Your task to perform on an android device: Go to Reddit.com Image 0: 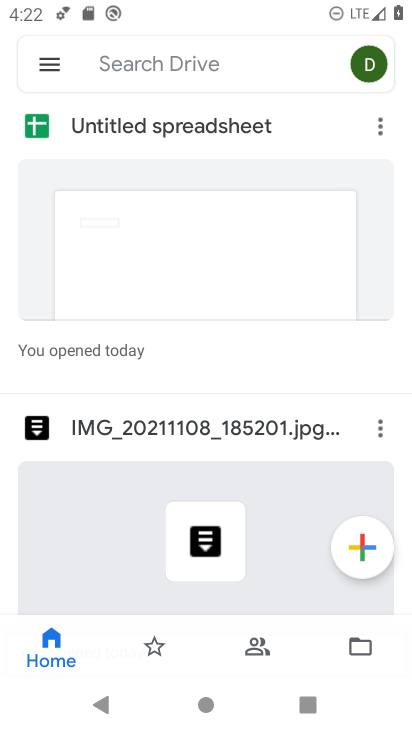
Step 0: press home button
Your task to perform on an android device: Go to Reddit.com Image 1: 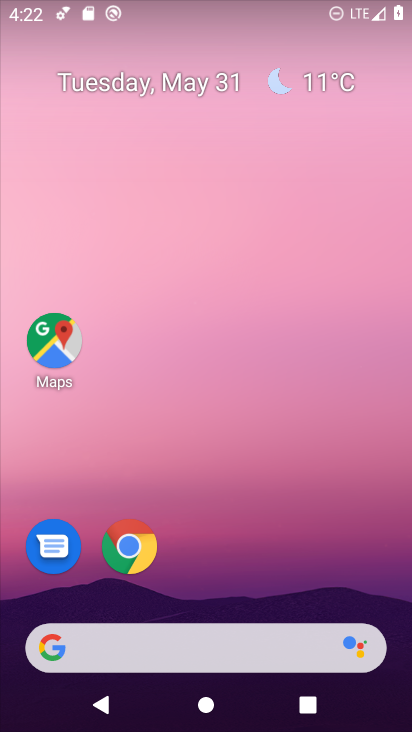
Step 1: click (131, 544)
Your task to perform on an android device: Go to Reddit.com Image 2: 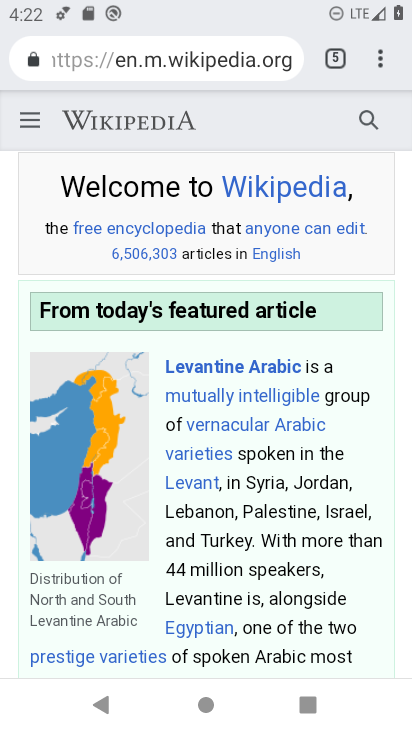
Step 2: click (326, 58)
Your task to perform on an android device: Go to Reddit.com Image 3: 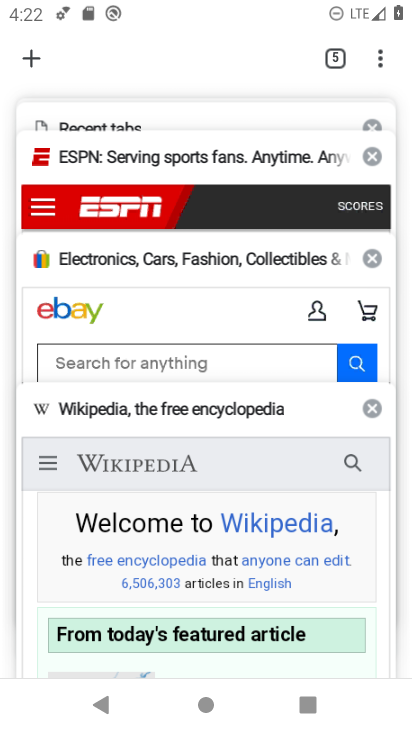
Step 3: drag from (212, 242) to (236, 555)
Your task to perform on an android device: Go to Reddit.com Image 4: 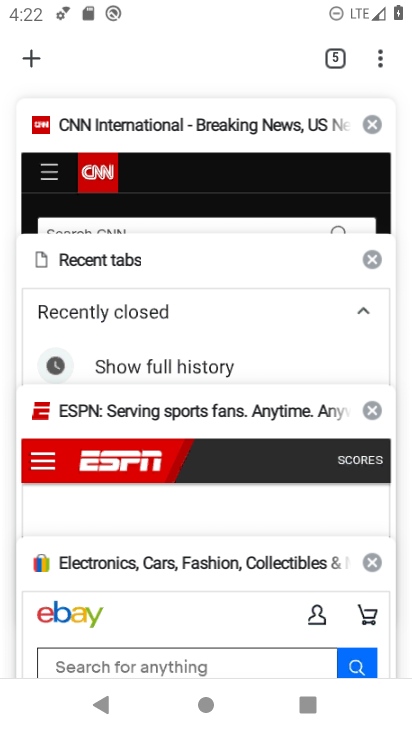
Step 4: click (25, 53)
Your task to perform on an android device: Go to Reddit.com Image 5: 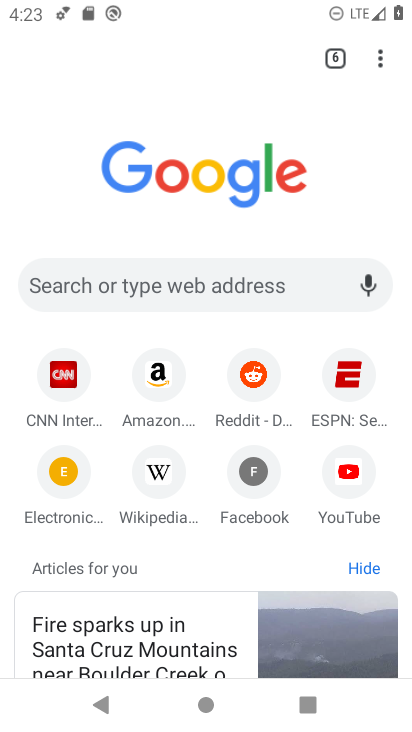
Step 5: click (368, 55)
Your task to perform on an android device: Go to Reddit.com Image 6: 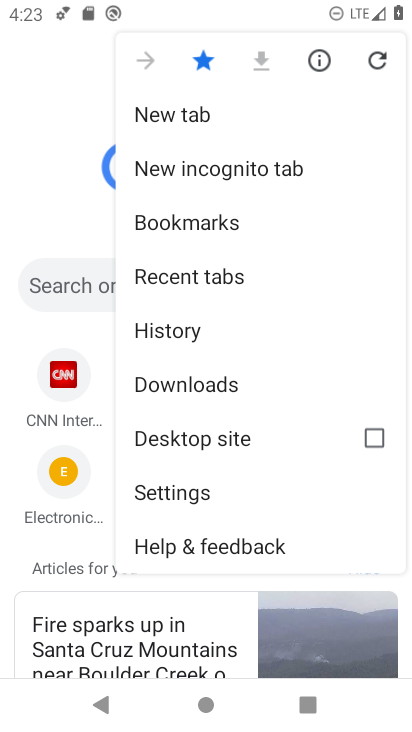
Step 6: click (194, 348)
Your task to perform on an android device: Go to Reddit.com Image 7: 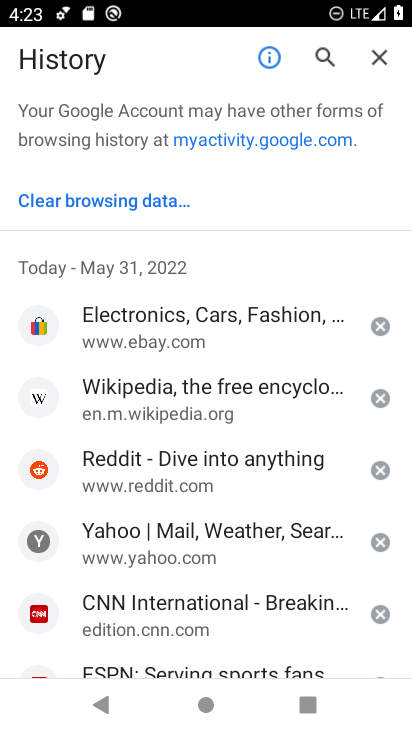
Step 7: click (188, 469)
Your task to perform on an android device: Go to Reddit.com Image 8: 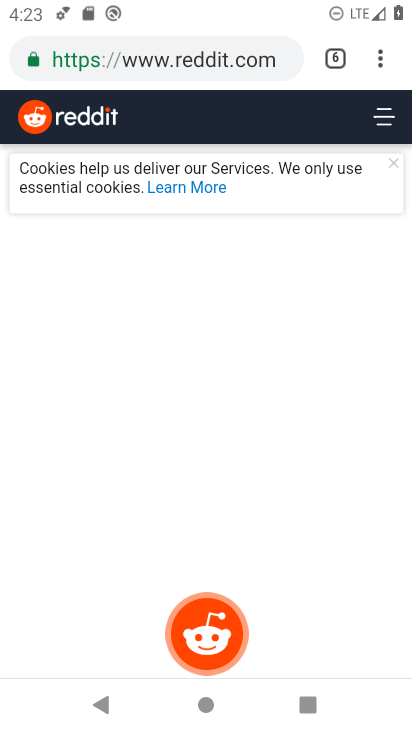
Step 8: task complete